Your task to perform on an android device: Go to display settings Image 0: 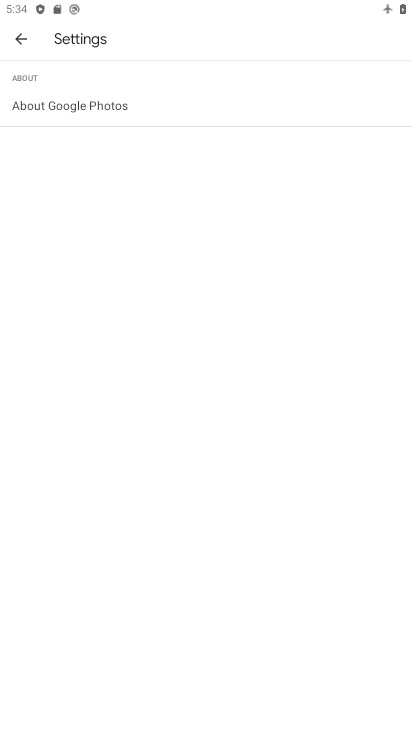
Step 0: press home button
Your task to perform on an android device: Go to display settings Image 1: 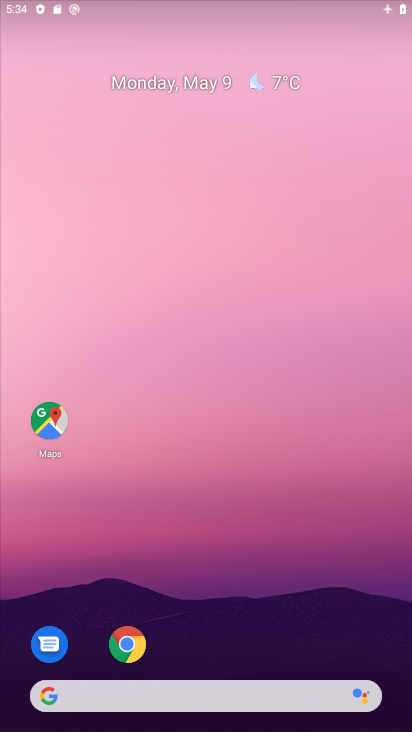
Step 1: drag from (277, 452) to (270, 54)
Your task to perform on an android device: Go to display settings Image 2: 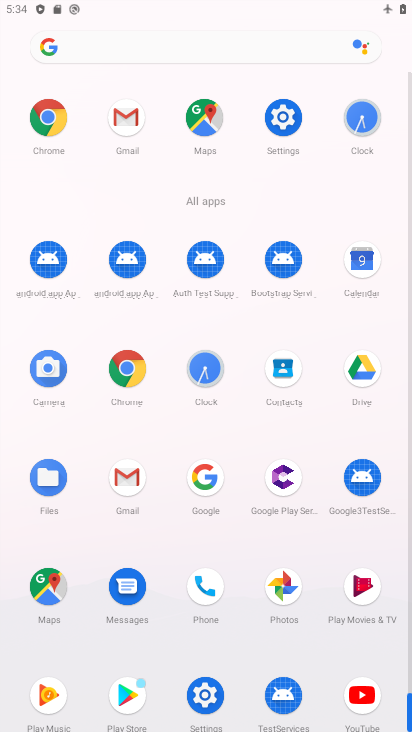
Step 2: click (278, 122)
Your task to perform on an android device: Go to display settings Image 3: 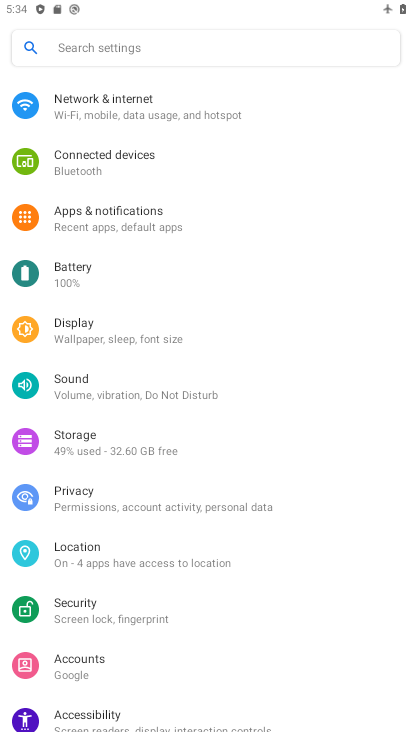
Step 3: click (98, 335)
Your task to perform on an android device: Go to display settings Image 4: 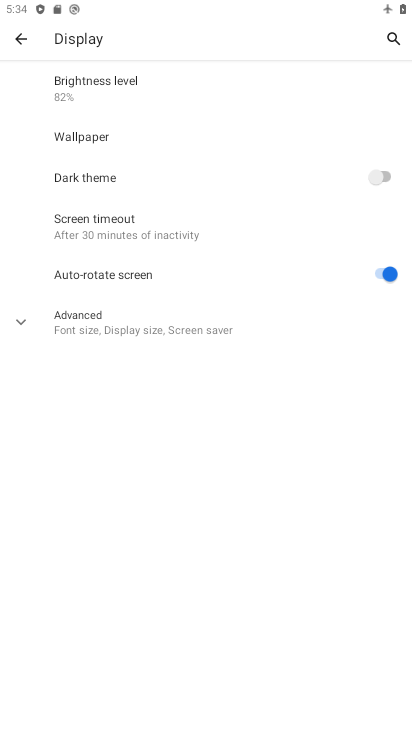
Step 4: task complete